Your task to perform on an android device: Open Youtube and go to "Your channel" Image 0: 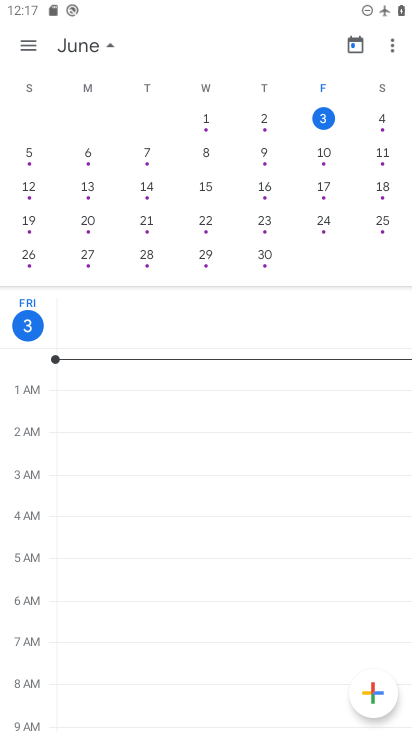
Step 0: press home button
Your task to perform on an android device: Open Youtube and go to "Your channel" Image 1: 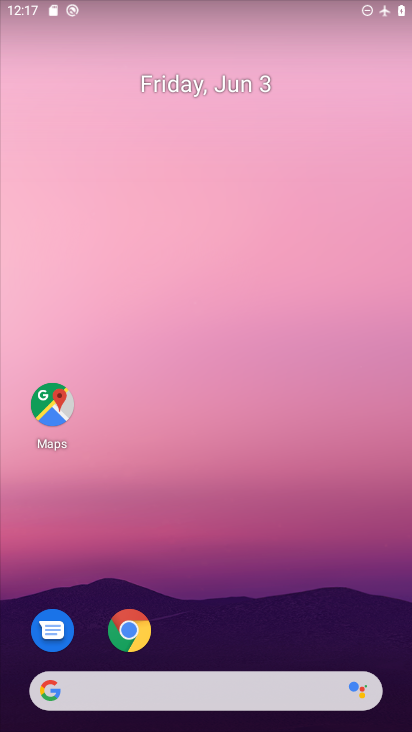
Step 1: drag from (301, 616) to (212, 158)
Your task to perform on an android device: Open Youtube and go to "Your channel" Image 2: 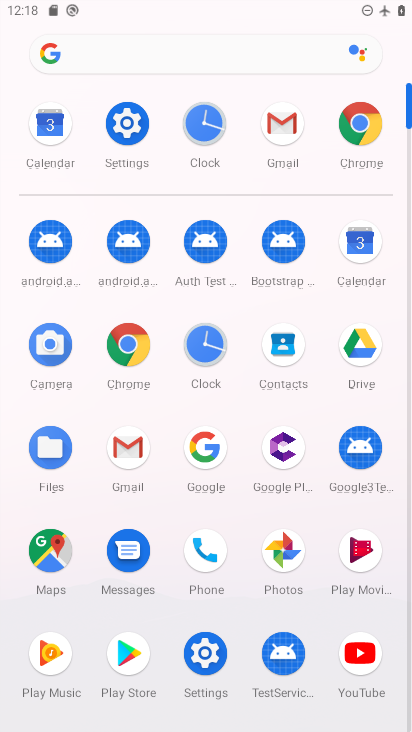
Step 2: click (376, 656)
Your task to perform on an android device: Open Youtube and go to "Your channel" Image 3: 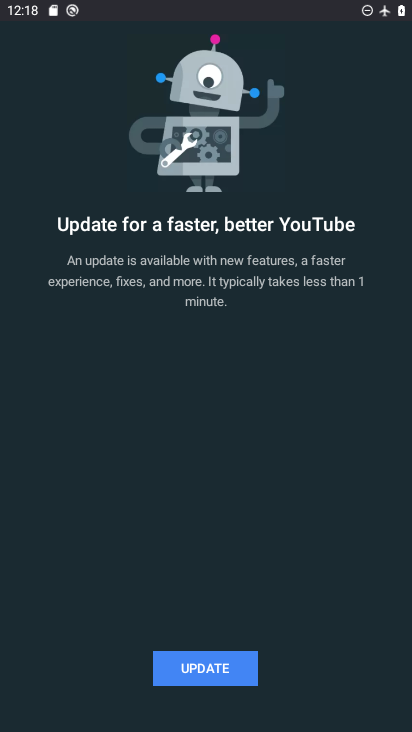
Step 3: click (246, 680)
Your task to perform on an android device: Open Youtube and go to "Your channel" Image 4: 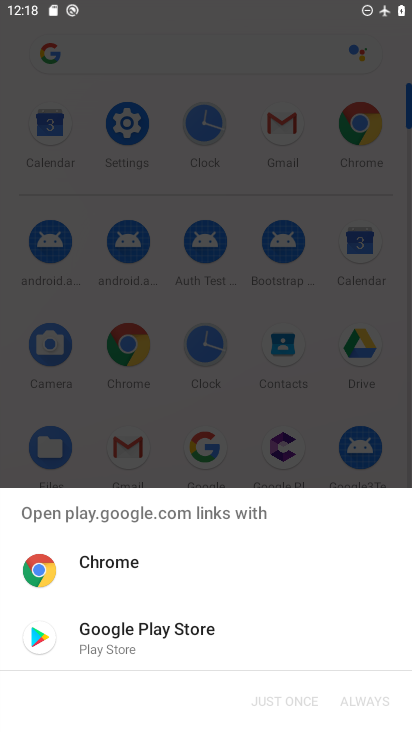
Step 4: click (218, 645)
Your task to perform on an android device: Open Youtube and go to "Your channel" Image 5: 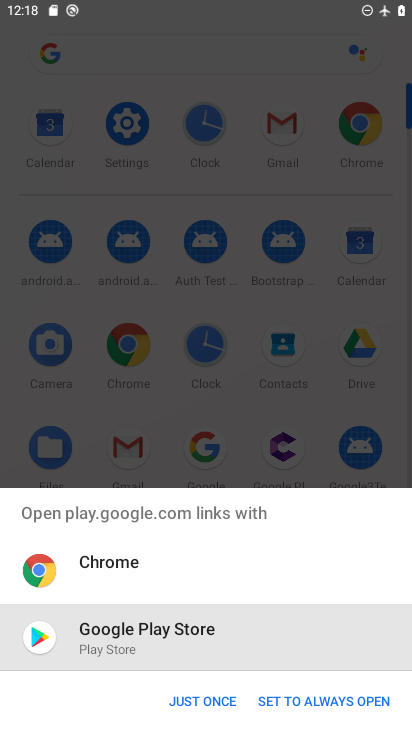
Step 5: click (210, 698)
Your task to perform on an android device: Open Youtube and go to "Your channel" Image 6: 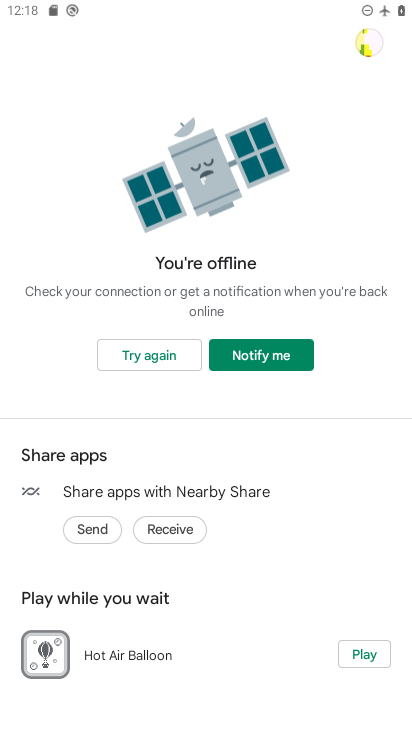
Step 6: task complete